Your task to perform on an android device: move a message to another label in the gmail app Image 0: 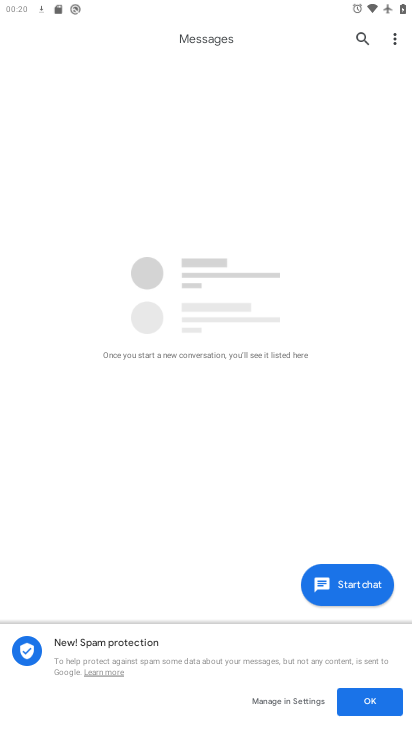
Step 0: press home button
Your task to perform on an android device: move a message to another label in the gmail app Image 1: 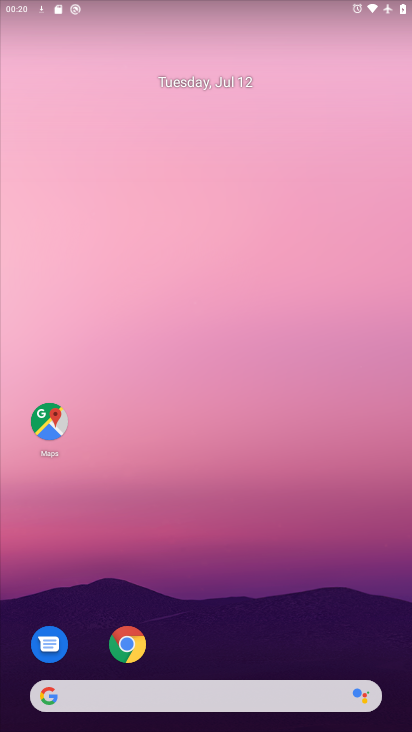
Step 1: drag from (239, 626) to (372, 231)
Your task to perform on an android device: move a message to another label in the gmail app Image 2: 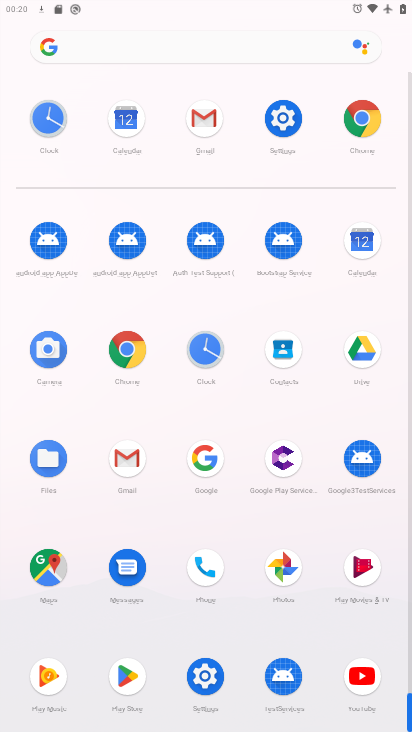
Step 2: click (111, 457)
Your task to perform on an android device: move a message to another label in the gmail app Image 3: 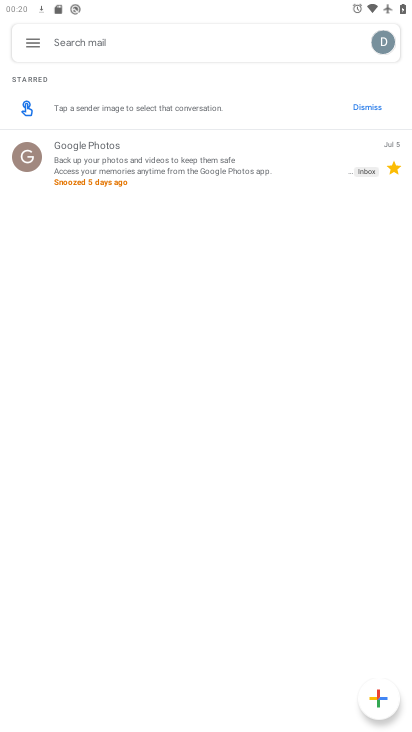
Step 3: click (22, 41)
Your task to perform on an android device: move a message to another label in the gmail app Image 4: 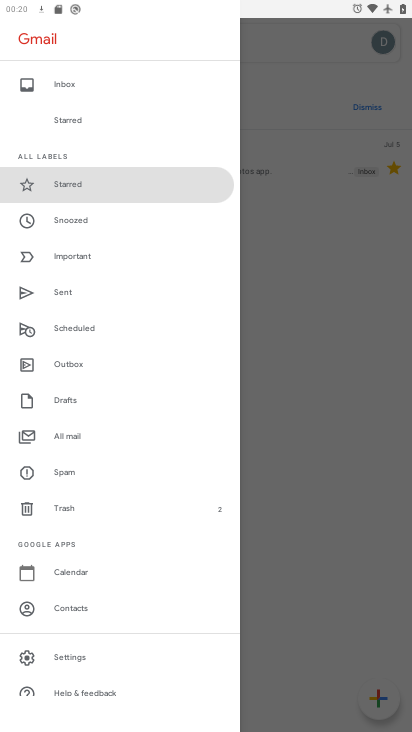
Step 4: click (78, 437)
Your task to perform on an android device: move a message to another label in the gmail app Image 5: 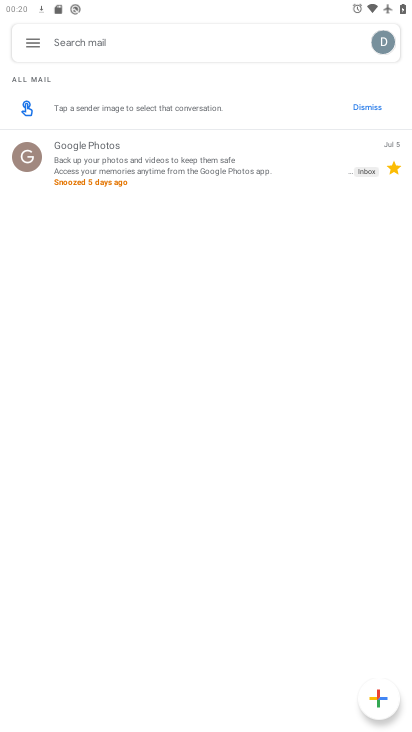
Step 5: click (151, 172)
Your task to perform on an android device: move a message to another label in the gmail app Image 6: 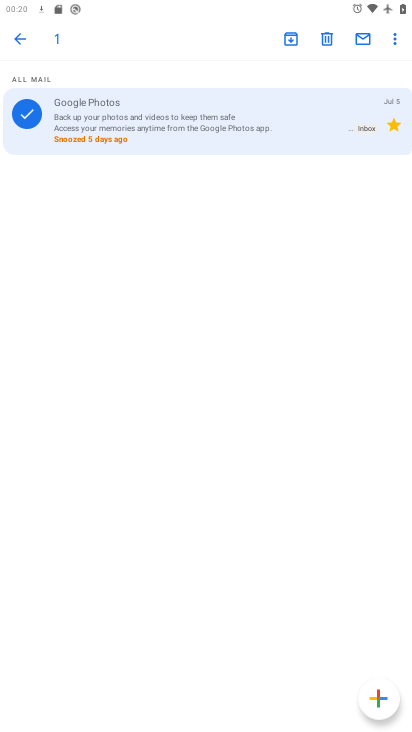
Step 6: click (400, 30)
Your task to perform on an android device: move a message to another label in the gmail app Image 7: 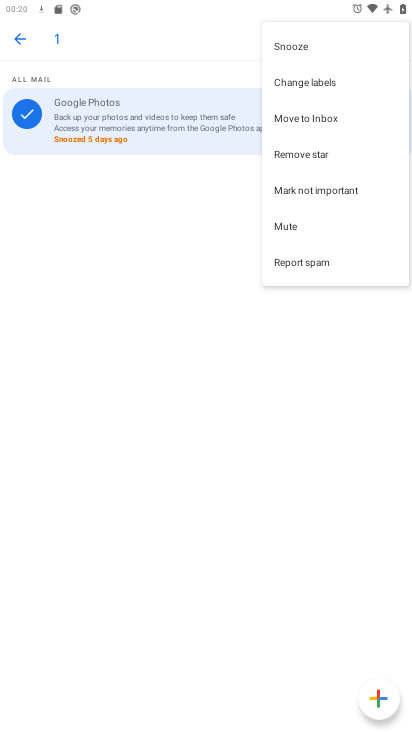
Step 7: click (319, 115)
Your task to perform on an android device: move a message to another label in the gmail app Image 8: 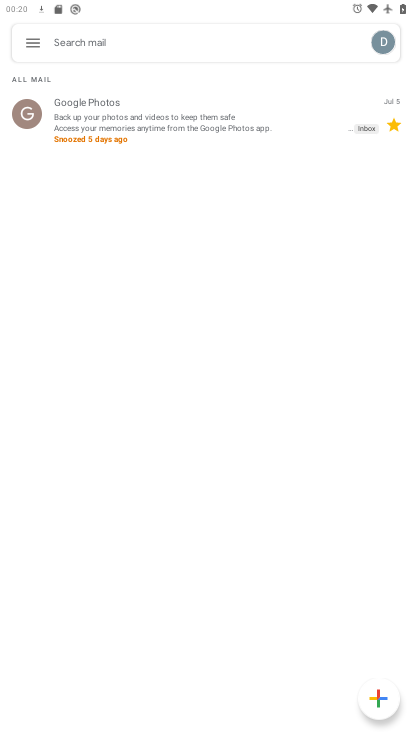
Step 8: click (118, 118)
Your task to perform on an android device: move a message to another label in the gmail app Image 9: 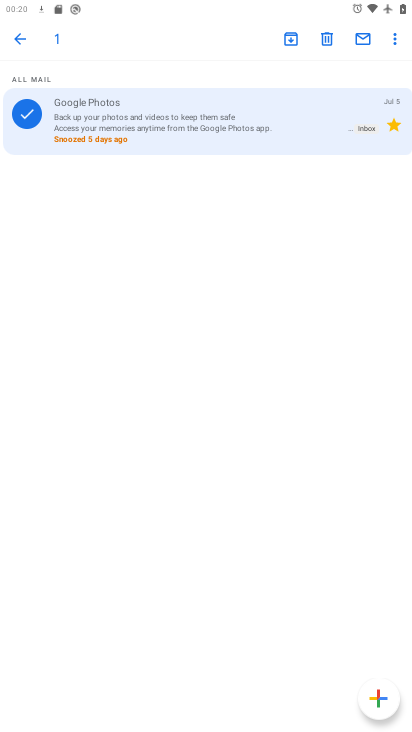
Step 9: click (389, 35)
Your task to perform on an android device: move a message to another label in the gmail app Image 10: 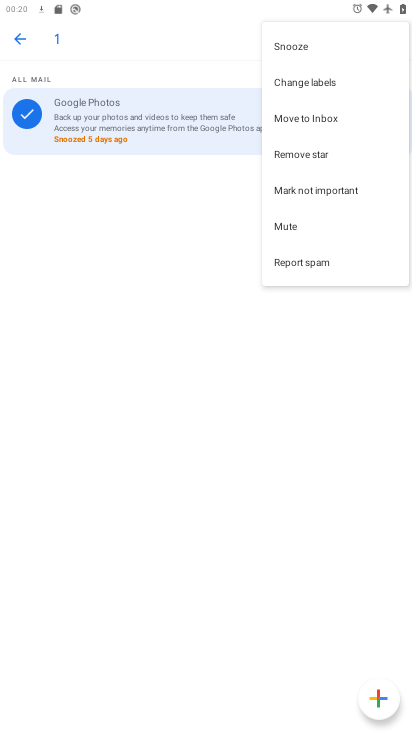
Step 10: click (308, 83)
Your task to perform on an android device: move a message to another label in the gmail app Image 11: 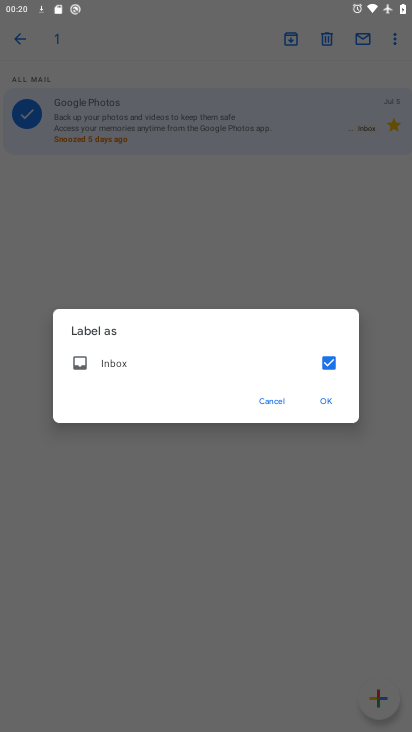
Step 11: click (327, 401)
Your task to perform on an android device: move a message to another label in the gmail app Image 12: 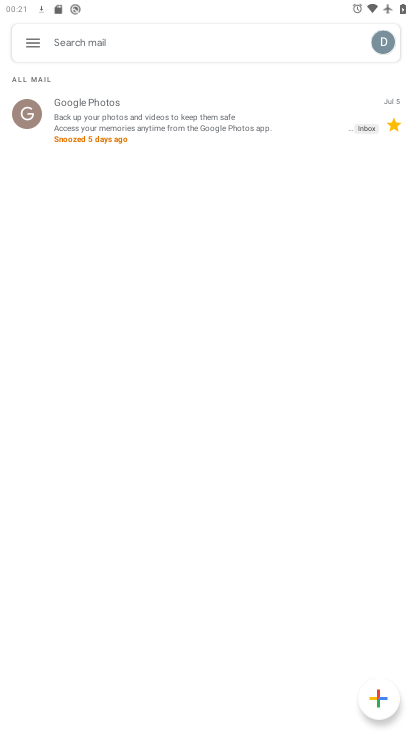
Step 12: task complete